Your task to perform on an android device: change text size in settings app Image 0: 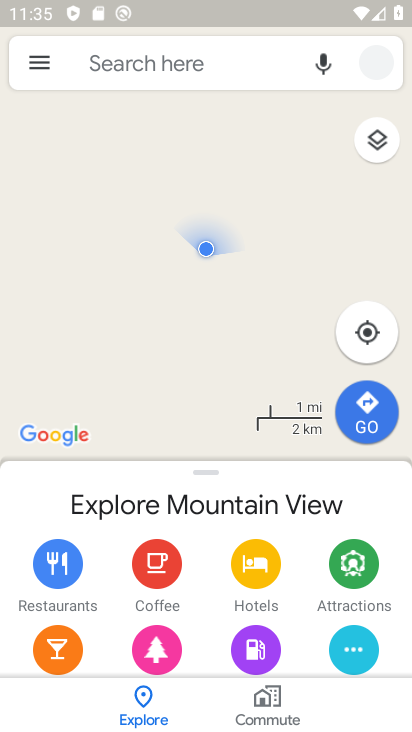
Step 0: press home button
Your task to perform on an android device: change text size in settings app Image 1: 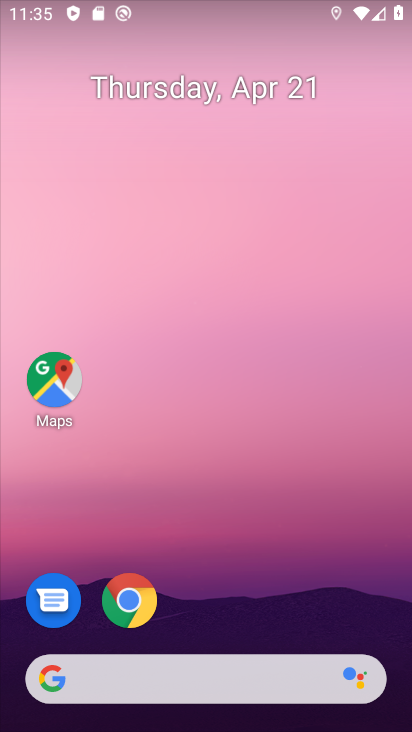
Step 1: drag from (208, 620) to (265, 44)
Your task to perform on an android device: change text size in settings app Image 2: 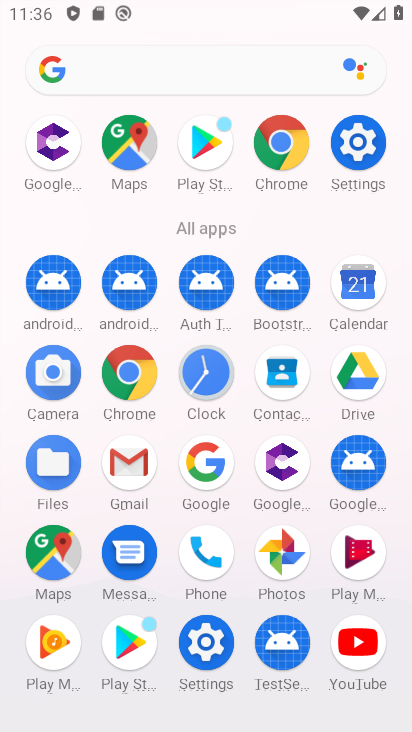
Step 2: click (204, 668)
Your task to perform on an android device: change text size in settings app Image 3: 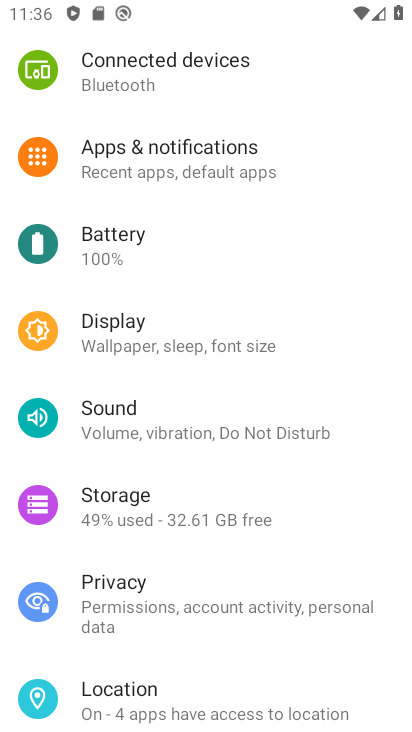
Step 3: click (148, 344)
Your task to perform on an android device: change text size in settings app Image 4: 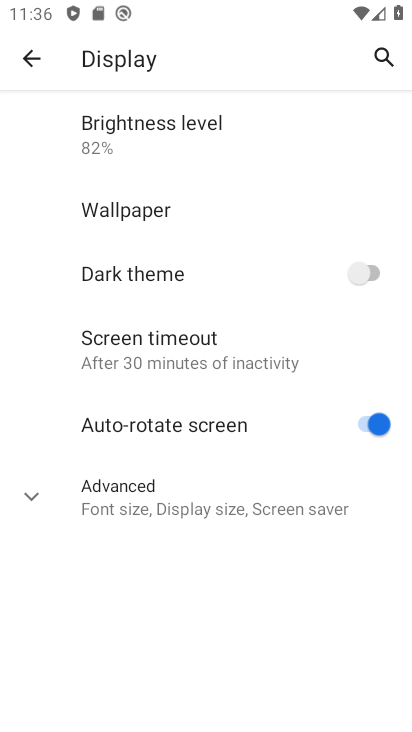
Step 4: click (118, 512)
Your task to perform on an android device: change text size in settings app Image 5: 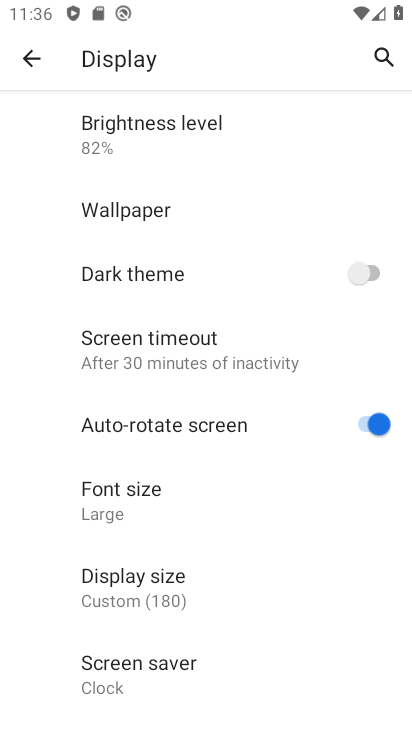
Step 5: click (118, 515)
Your task to perform on an android device: change text size in settings app Image 6: 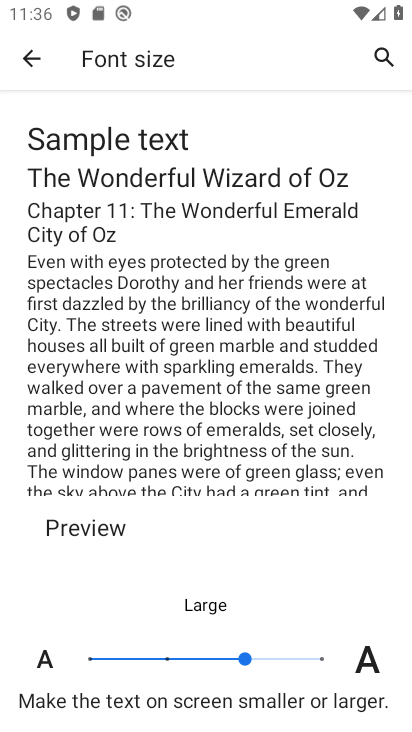
Step 6: click (173, 654)
Your task to perform on an android device: change text size in settings app Image 7: 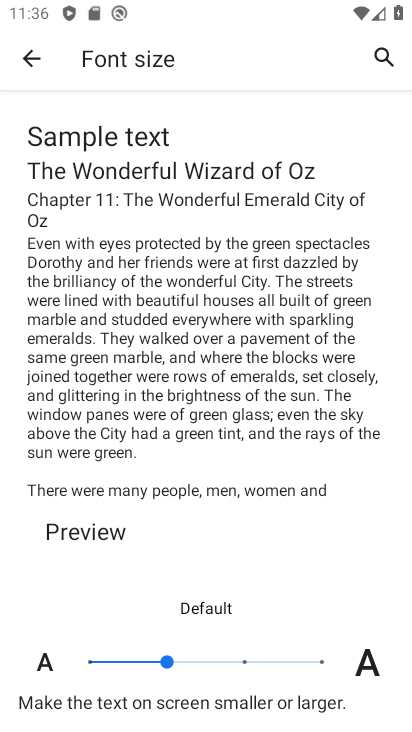
Step 7: task complete